Your task to perform on an android device: Go to Maps Image 0: 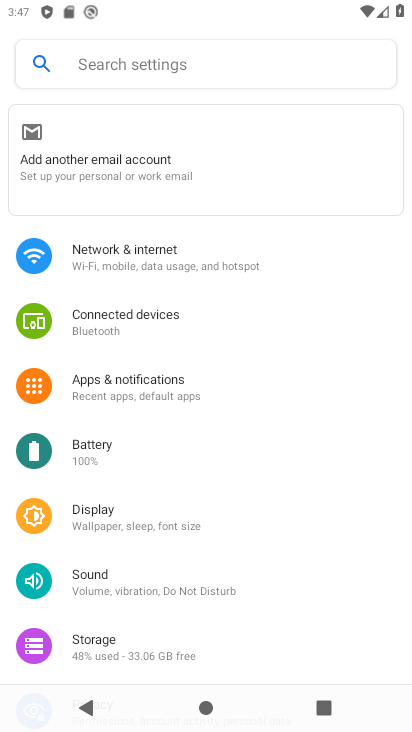
Step 0: press home button
Your task to perform on an android device: Go to Maps Image 1: 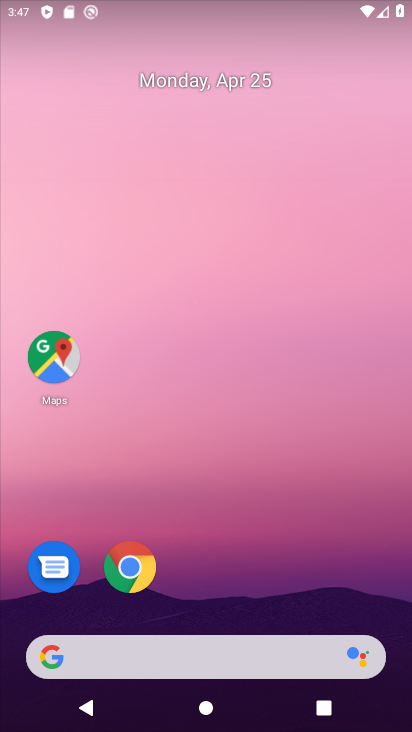
Step 1: click (38, 378)
Your task to perform on an android device: Go to Maps Image 2: 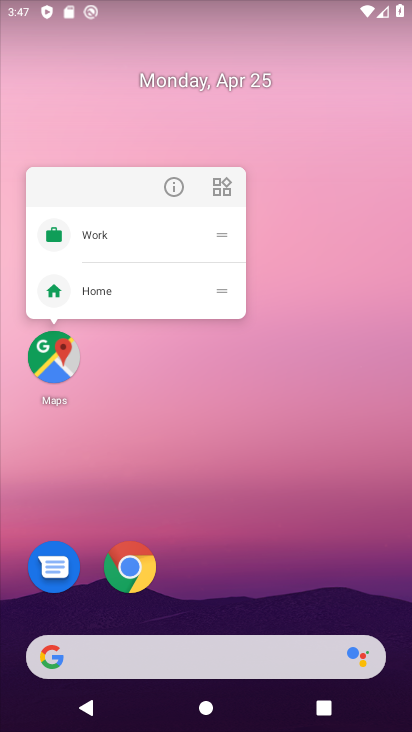
Step 2: click (53, 359)
Your task to perform on an android device: Go to Maps Image 3: 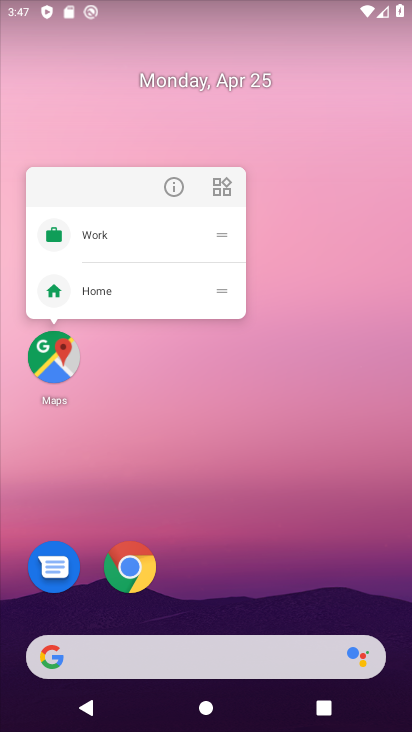
Step 3: click (53, 361)
Your task to perform on an android device: Go to Maps Image 4: 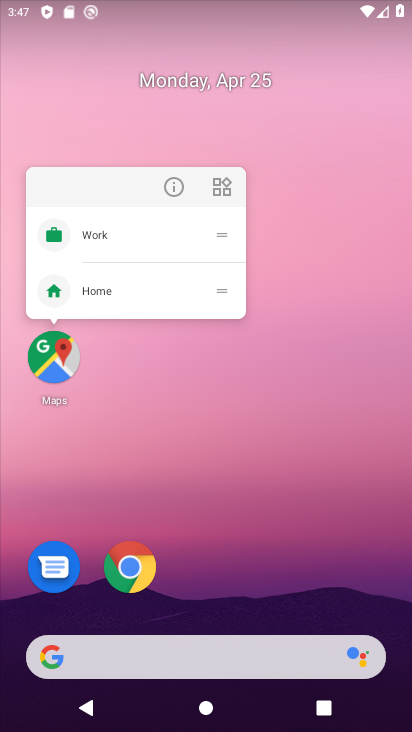
Step 4: click (49, 373)
Your task to perform on an android device: Go to Maps Image 5: 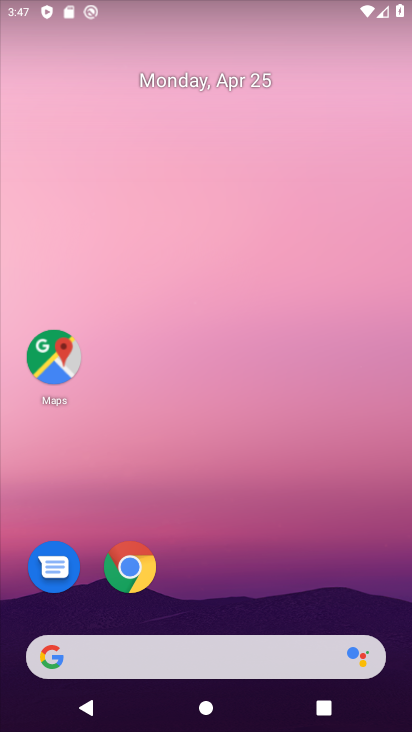
Step 5: click (49, 373)
Your task to perform on an android device: Go to Maps Image 6: 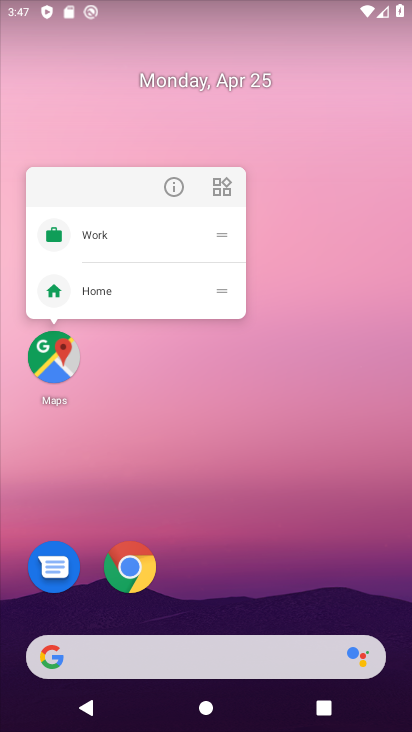
Step 6: click (89, 288)
Your task to perform on an android device: Go to Maps Image 7: 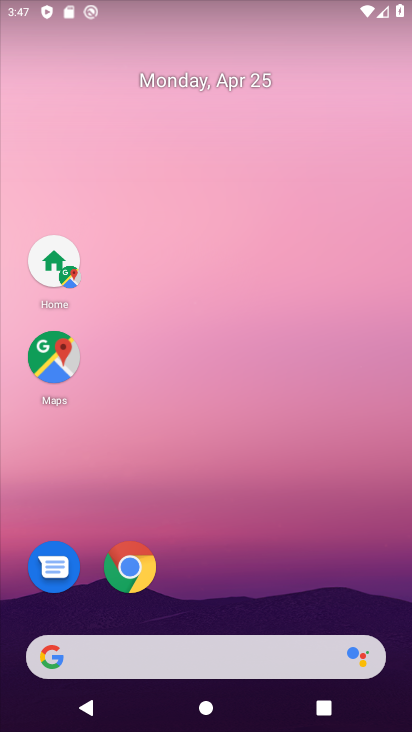
Step 7: click (57, 259)
Your task to perform on an android device: Go to Maps Image 8: 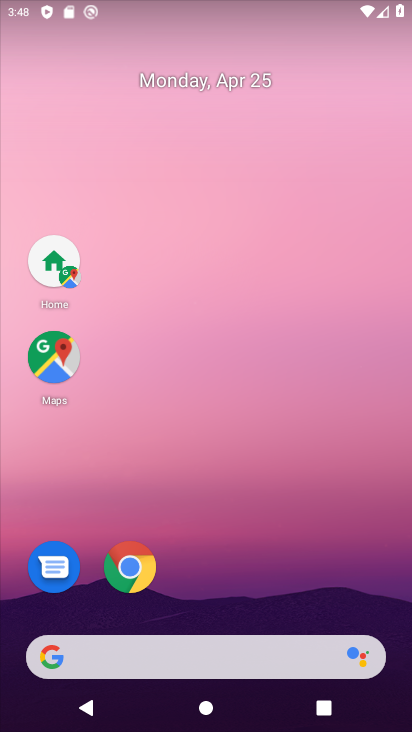
Step 8: click (51, 370)
Your task to perform on an android device: Go to Maps Image 9: 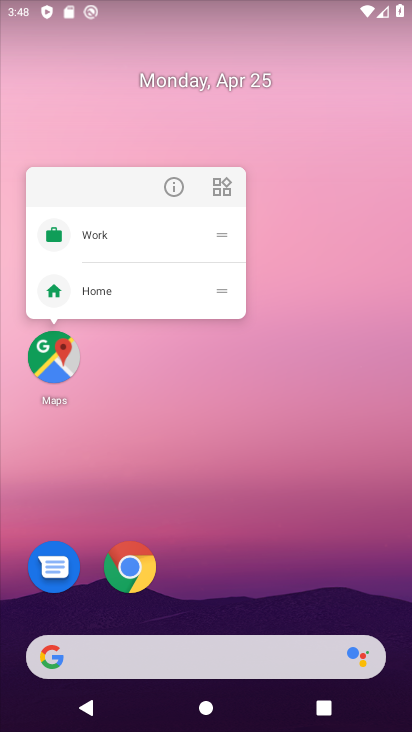
Step 9: click (51, 370)
Your task to perform on an android device: Go to Maps Image 10: 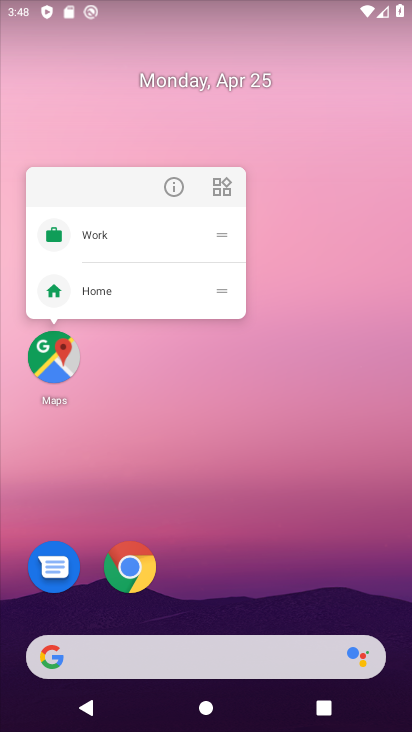
Step 10: click (47, 352)
Your task to perform on an android device: Go to Maps Image 11: 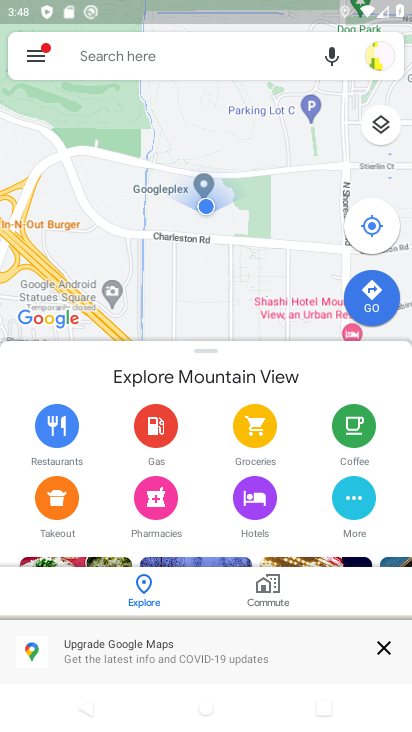
Step 11: task complete